Your task to perform on an android device: open app "PlayWell" (install if not already installed) Image 0: 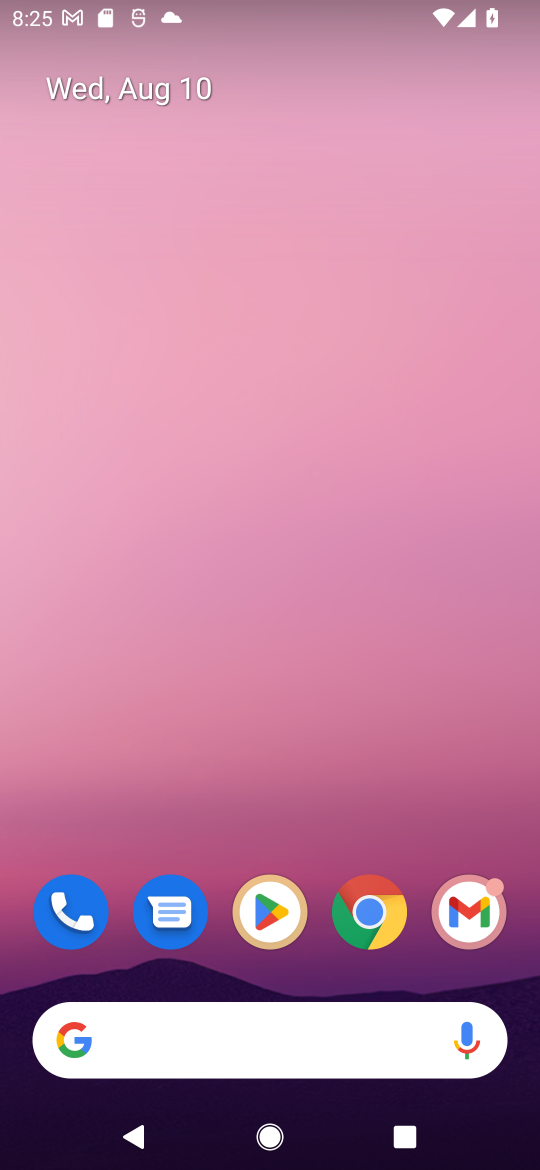
Step 0: drag from (526, 950) to (290, 95)
Your task to perform on an android device: open app "PlayWell" (install if not already installed) Image 1: 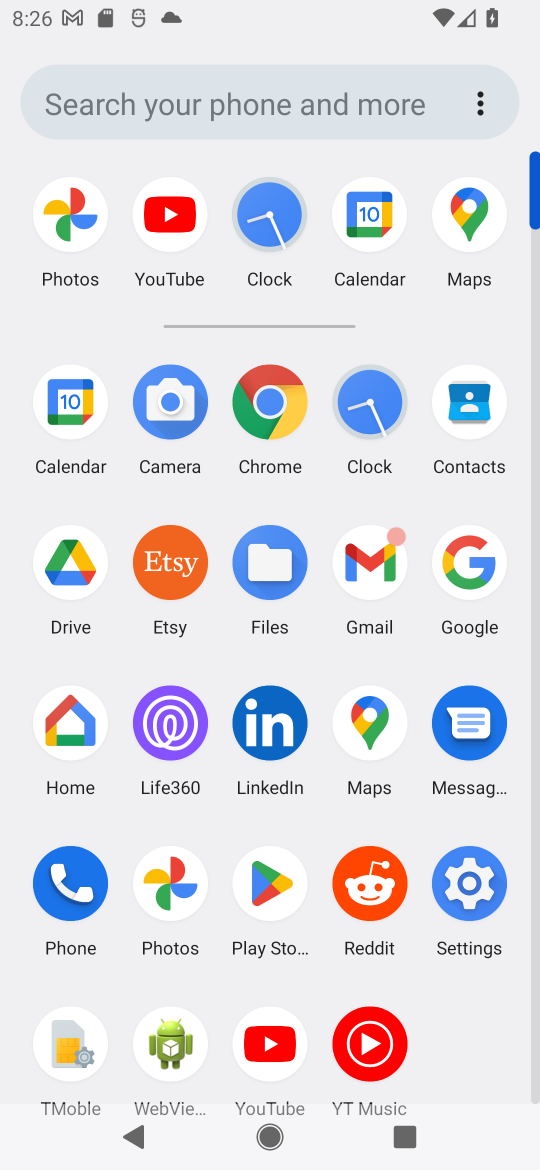
Step 1: click (293, 870)
Your task to perform on an android device: open app "PlayWell" (install if not already installed) Image 2: 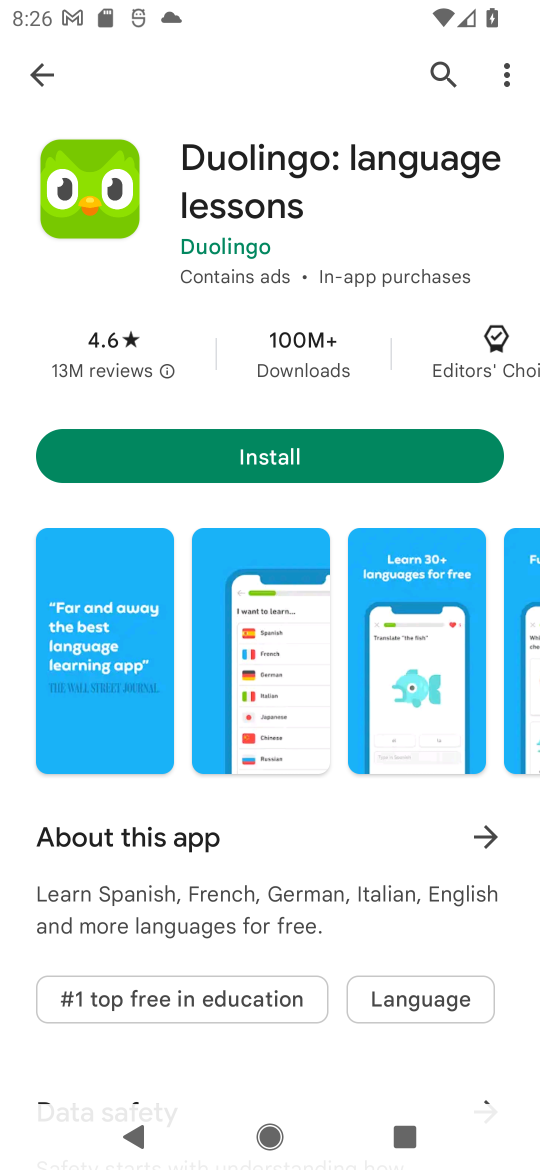
Step 2: press back button
Your task to perform on an android device: open app "PlayWell" (install if not already installed) Image 3: 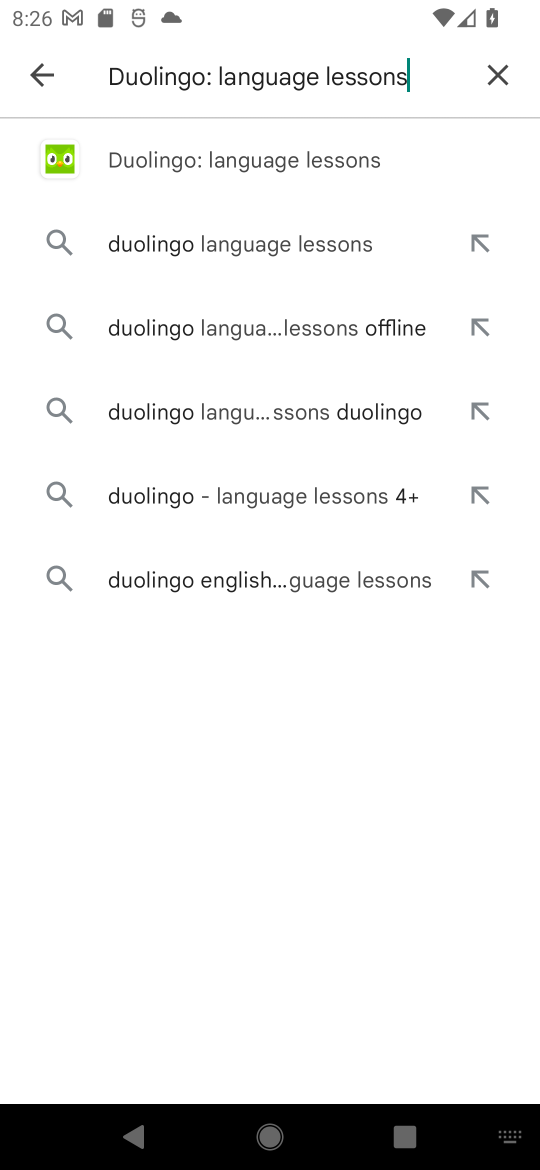
Step 3: press back button
Your task to perform on an android device: open app "PlayWell" (install if not already installed) Image 4: 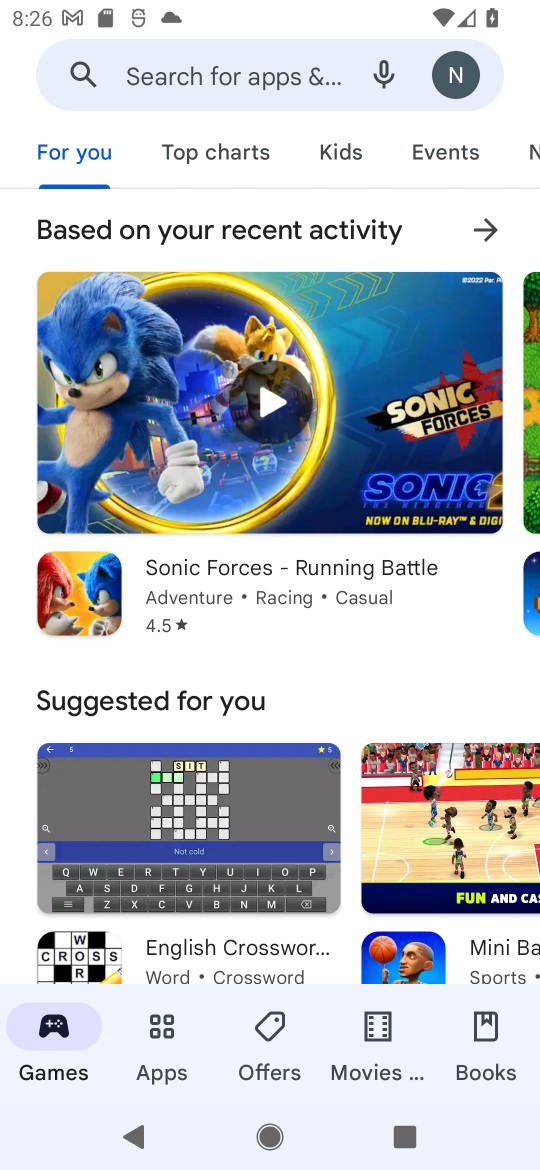
Step 4: click (218, 72)
Your task to perform on an android device: open app "PlayWell" (install if not already installed) Image 5: 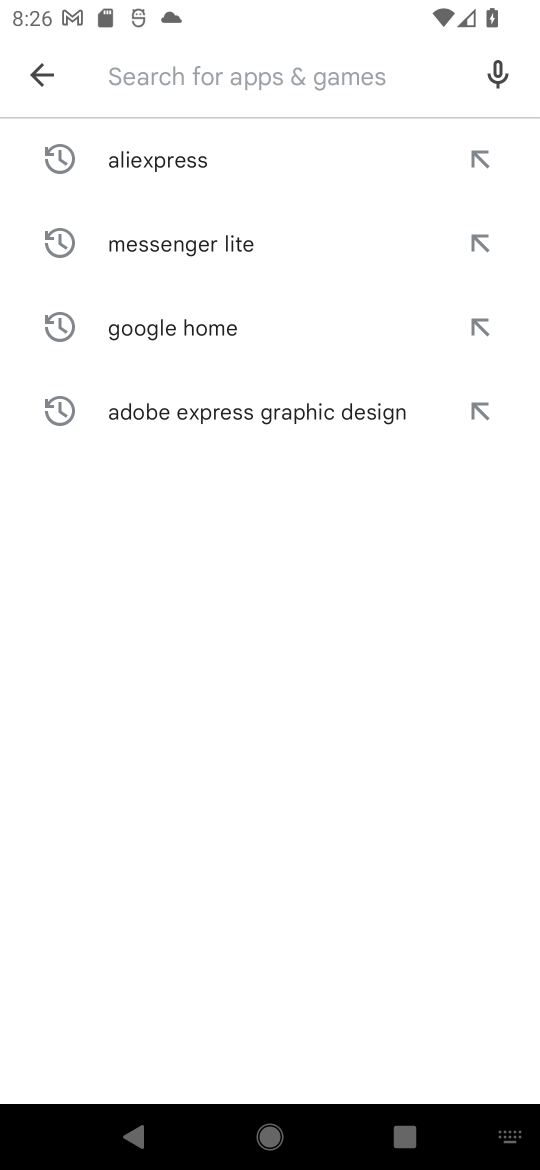
Step 5: type "PlayWell"
Your task to perform on an android device: open app "PlayWell" (install if not already installed) Image 6: 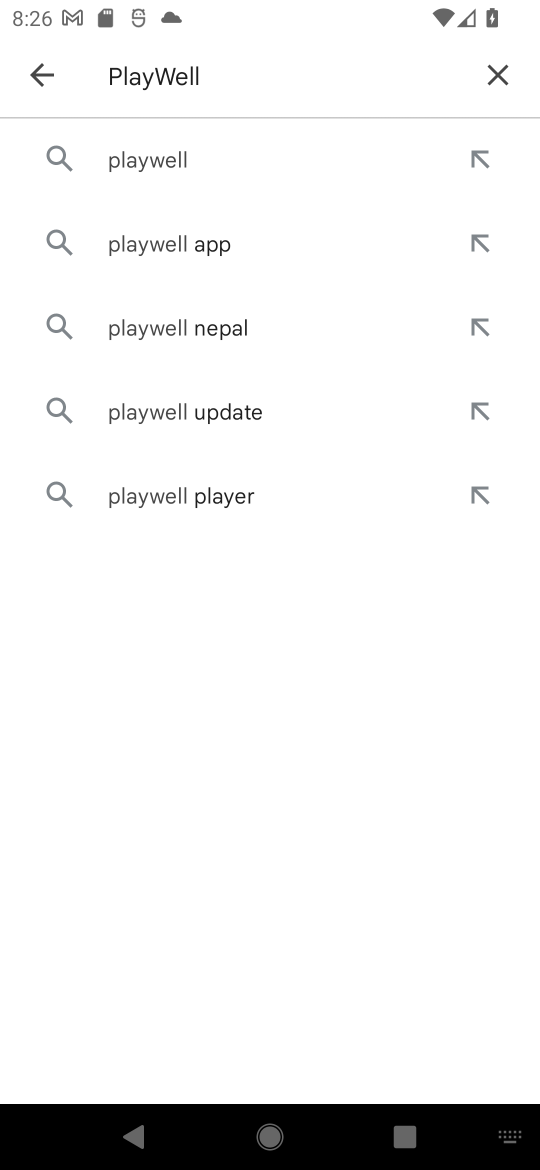
Step 6: click (179, 144)
Your task to perform on an android device: open app "PlayWell" (install if not already installed) Image 7: 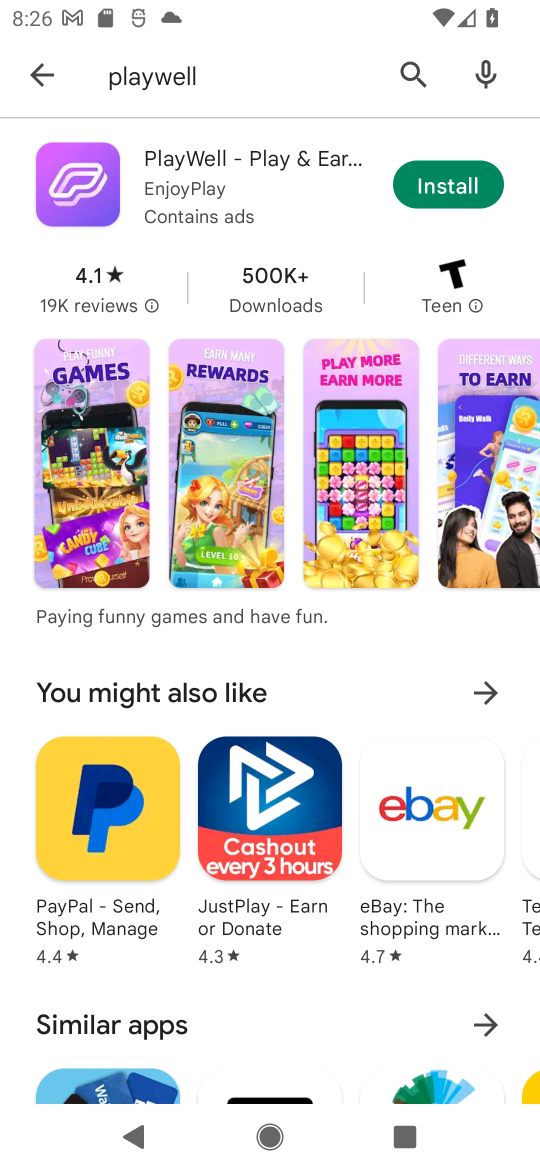
Step 7: task complete